Your task to perform on an android device: turn pop-ups on in chrome Image 0: 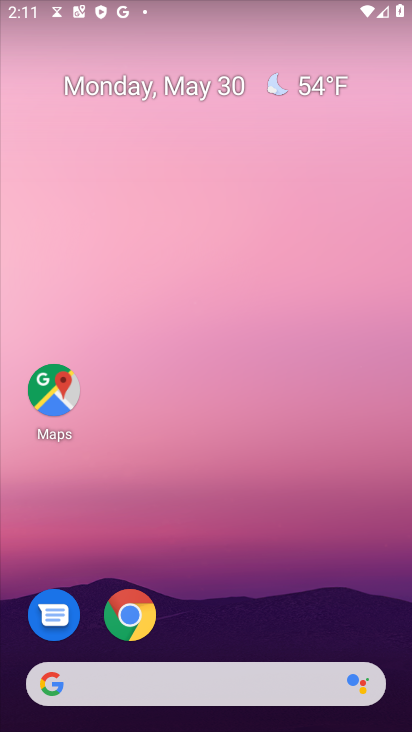
Step 0: drag from (284, 594) to (280, 52)
Your task to perform on an android device: turn pop-ups on in chrome Image 1: 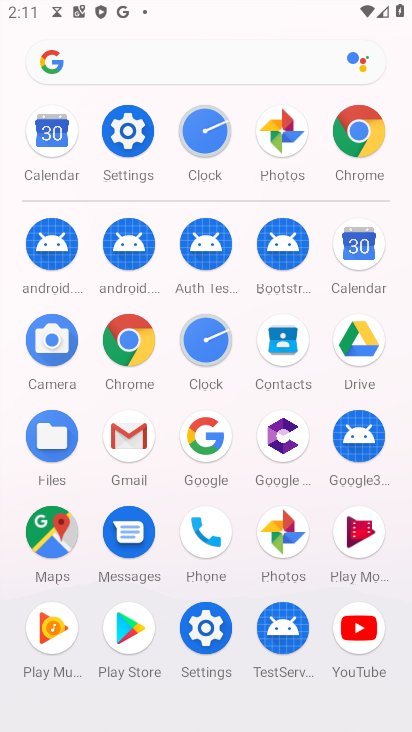
Step 1: click (360, 122)
Your task to perform on an android device: turn pop-ups on in chrome Image 2: 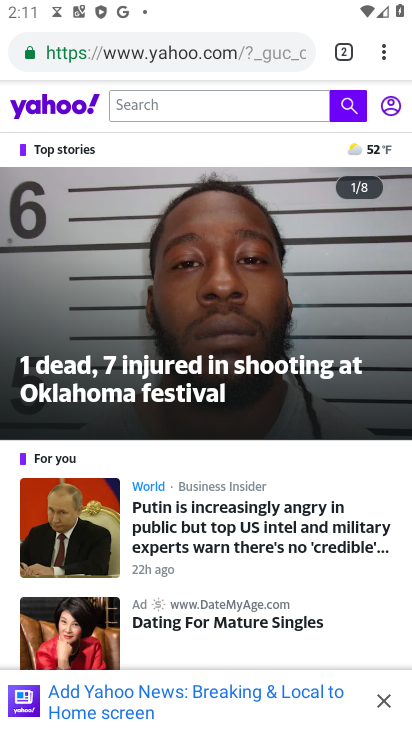
Step 2: drag from (380, 72) to (259, 623)
Your task to perform on an android device: turn pop-ups on in chrome Image 3: 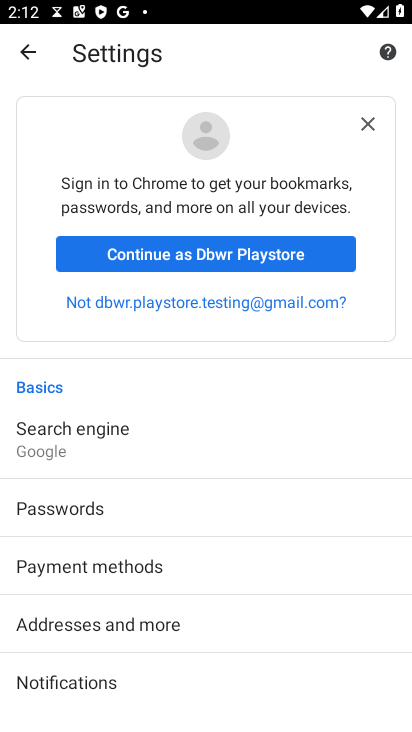
Step 3: drag from (259, 621) to (242, 330)
Your task to perform on an android device: turn pop-ups on in chrome Image 4: 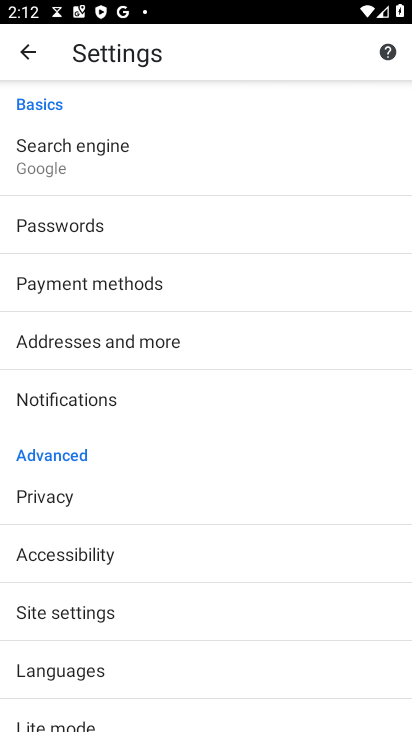
Step 4: click (107, 597)
Your task to perform on an android device: turn pop-ups on in chrome Image 5: 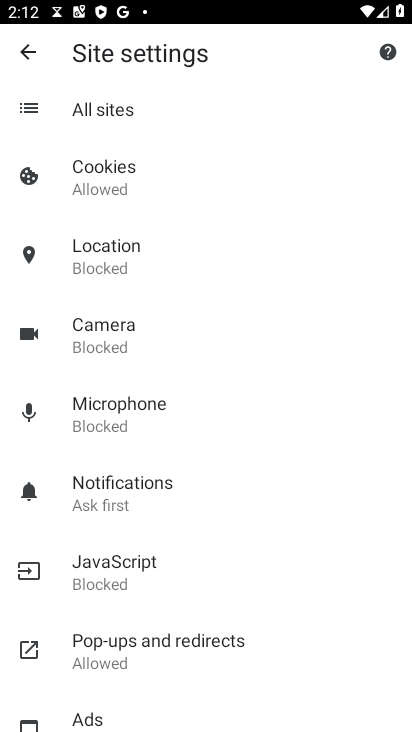
Step 5: click (61, 626)
Your task to perform on an android device: turn pop-ups on in chrome Image 6: 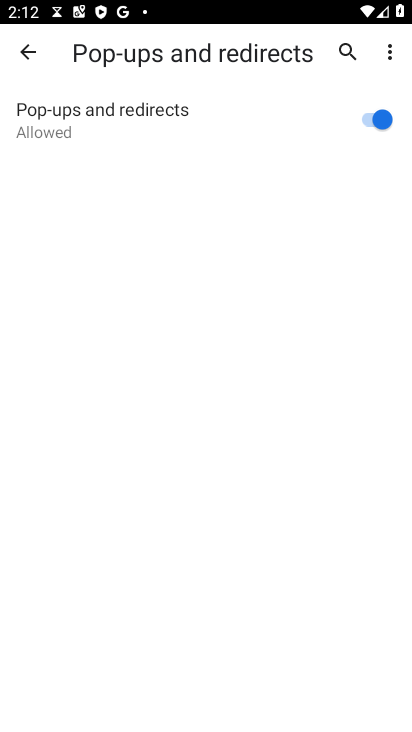
Step 6: task complete